Your task to perform on an android device: Search for "beats solo 3" on costco.com, select the first entry, and add it to the cart. Image 0: 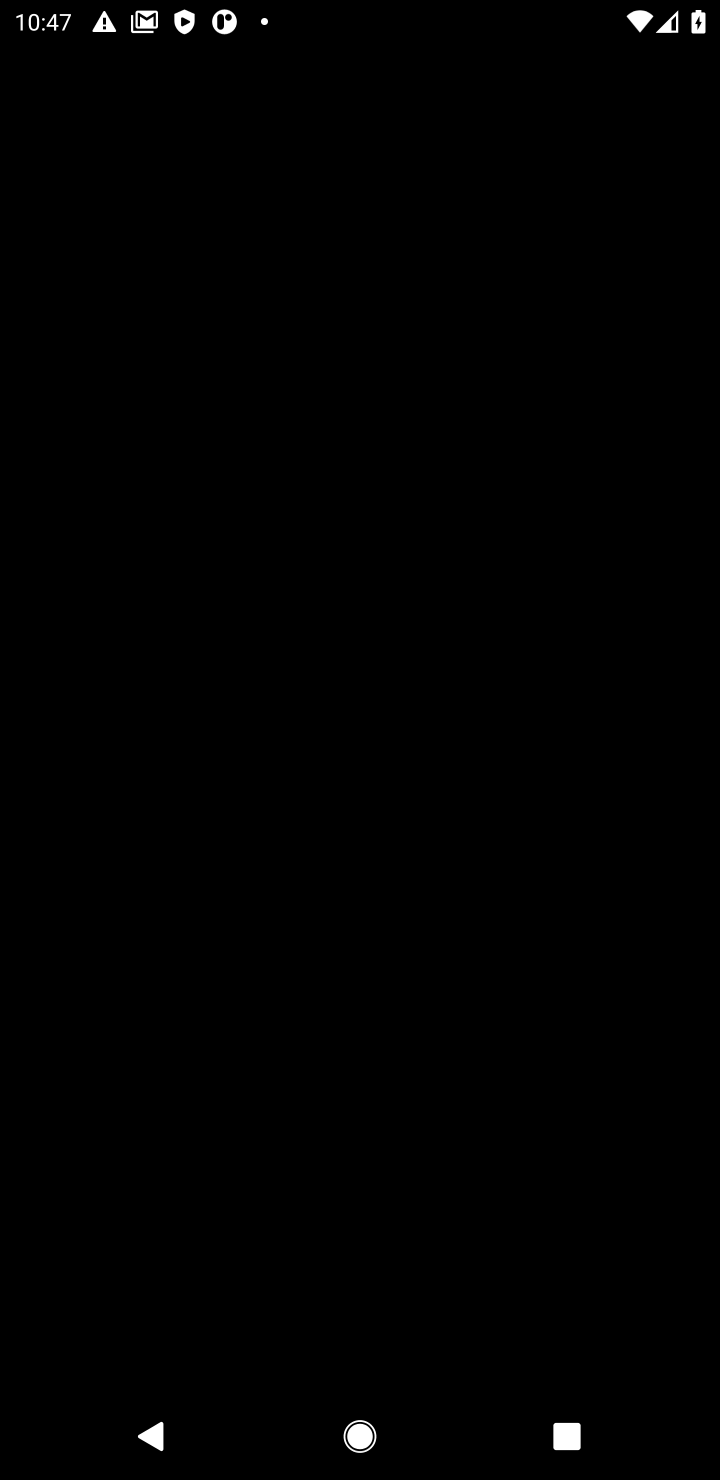
Step 0: press home button
Your task to perform on an android device: Search for "beats solo 3" on costco.com, select the first entry, and add it to the cart. Image 1: 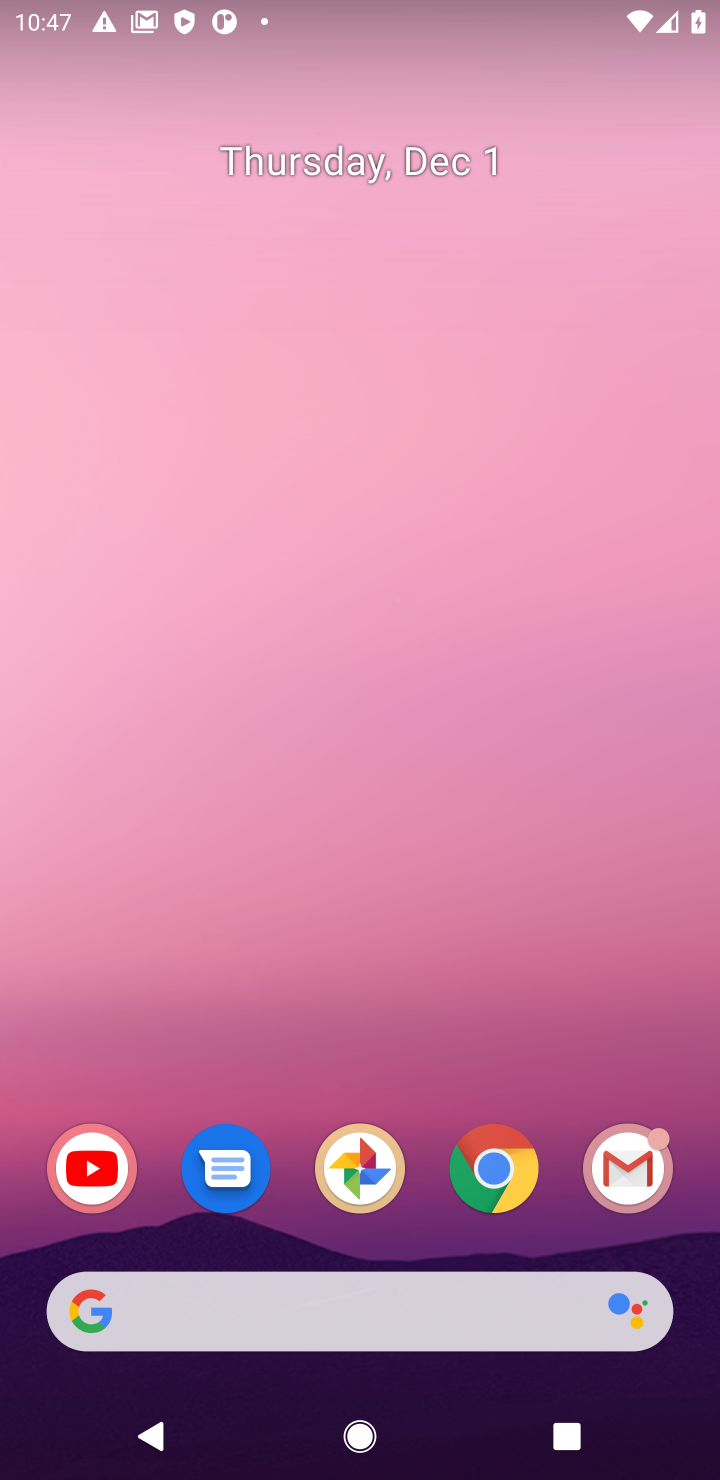
Step 1: click (492, 1173)
Your task to perform on an android device: Search for "beats solo 3" on costco.com, select the first entry, and add it to the cart. Image 2: 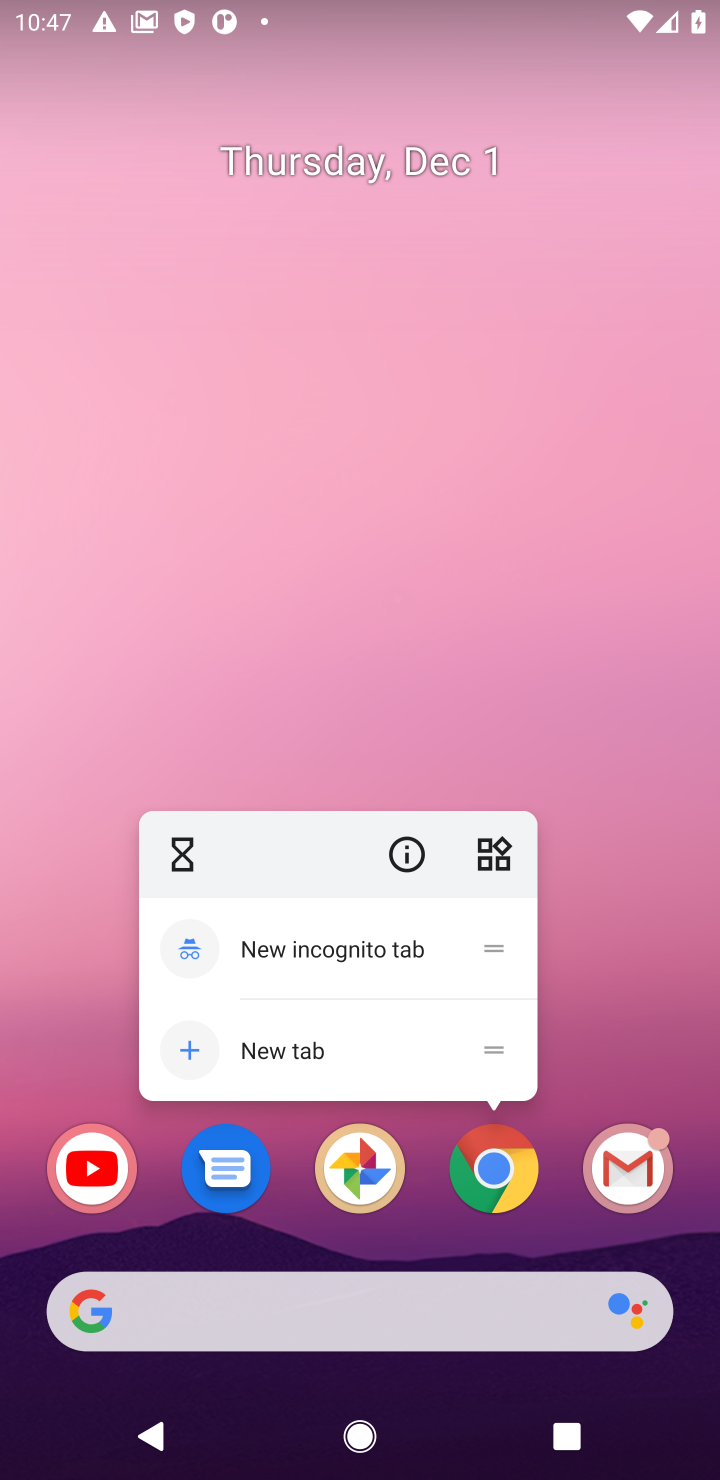
Step 2: click (492, 1173)
Your task to perform on an android device: Search for "beats solo 3" on costco.com, select the first entry, and add it to the cart. Image 3: 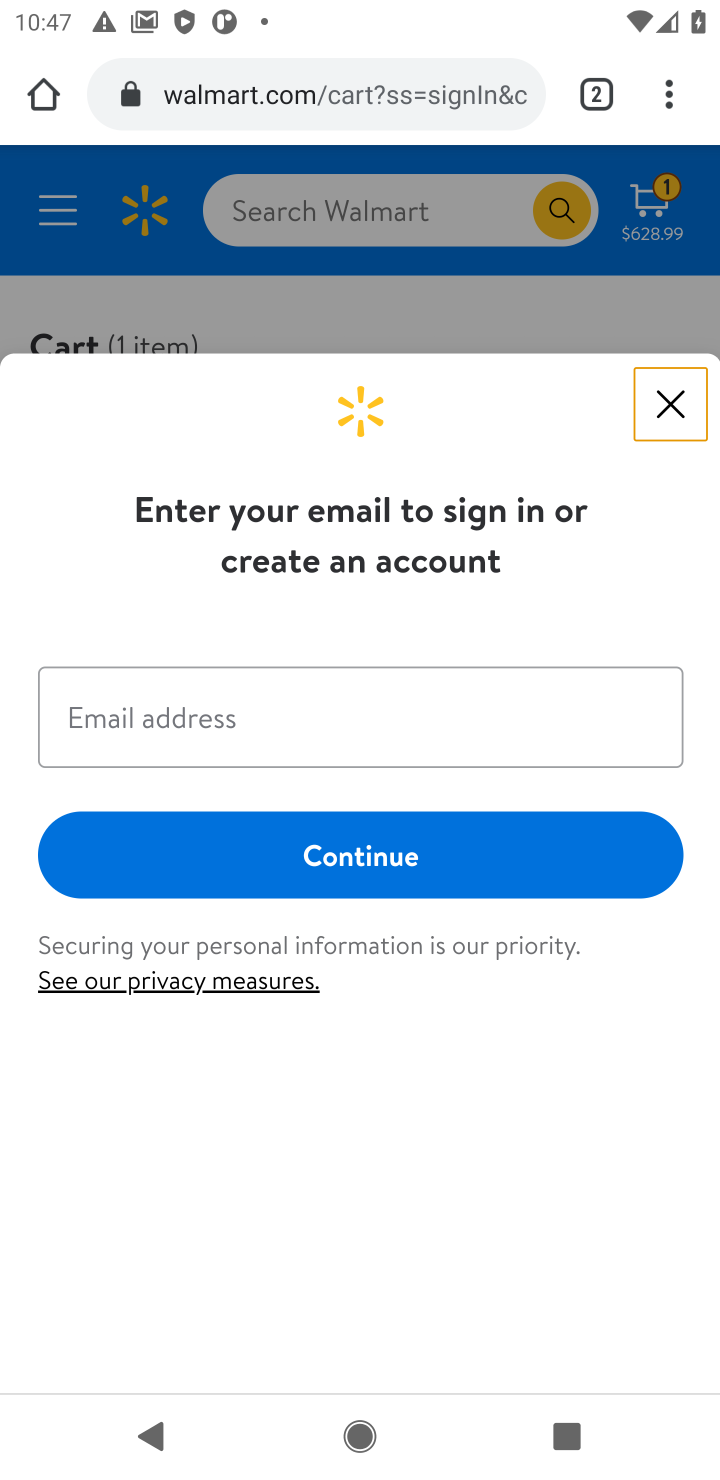
Step 3: click (246, 100)
Your task to perform on an android device: Search for "beats solo 3" on costco.com, select the first entry, and add it to the cart. Image 4: 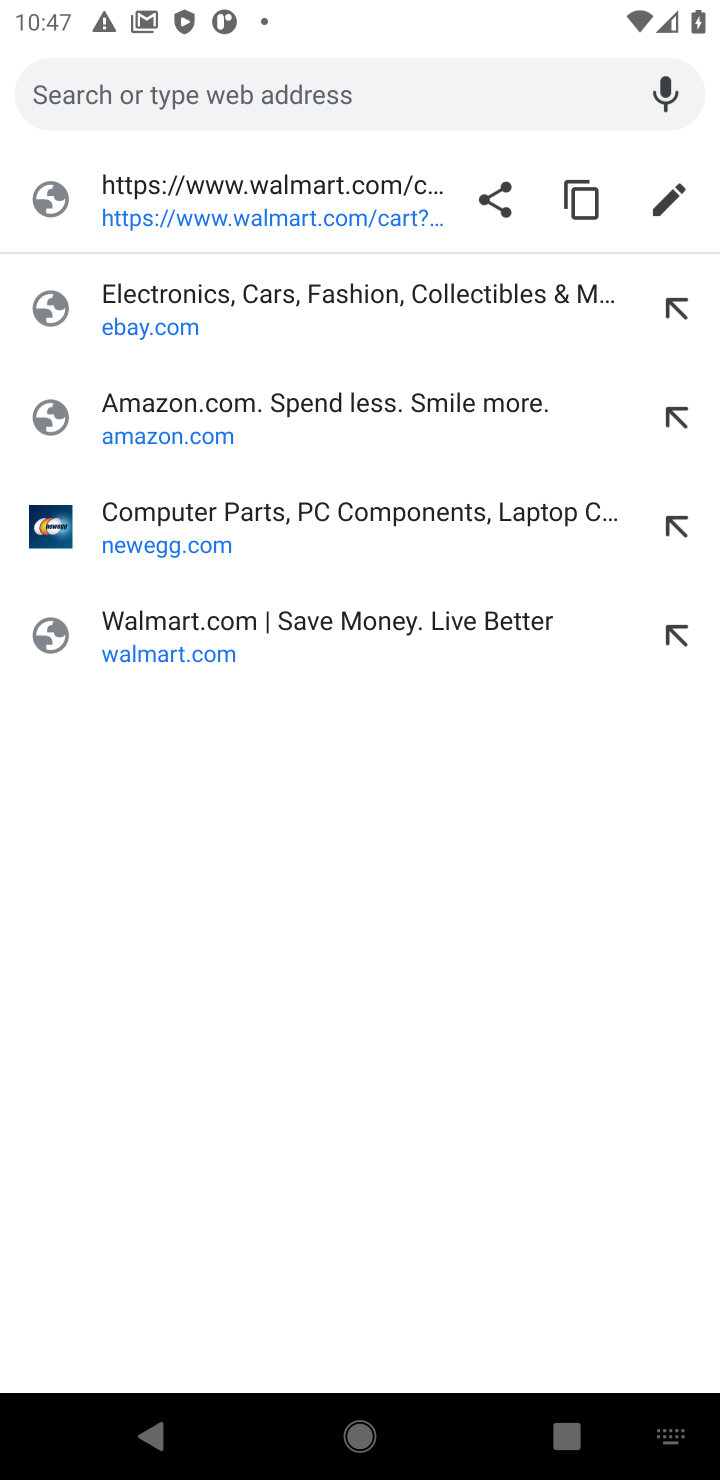
Step 4: type "costco.com"
Your task to perform on an android device: Search for "beats solo 3" on costco.com, select the first entry, and add it to the cart. Image 5: 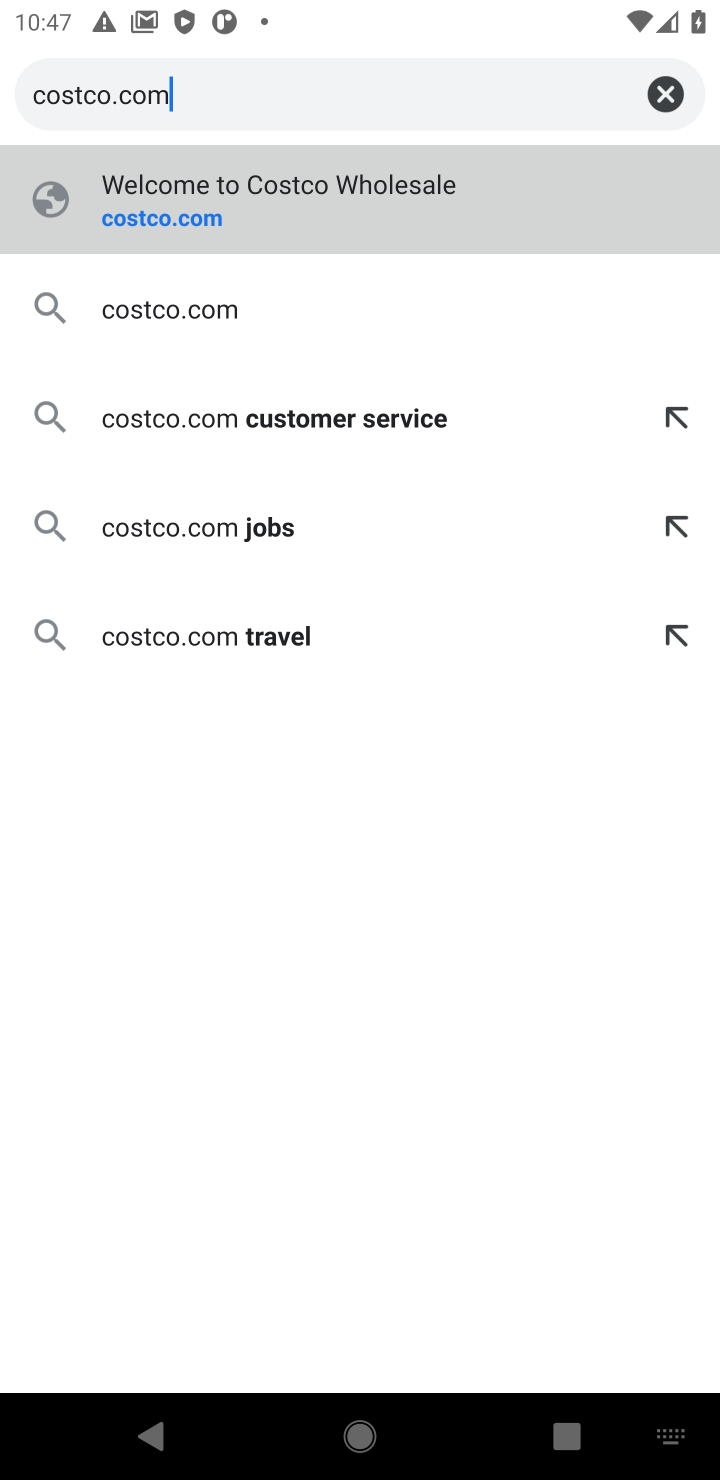
Step 5: click (123, 218)
Your task to perform on an android device: Search for "beats solo 3" on costco.com, select the first entry, and add it to the cart. Image 6: 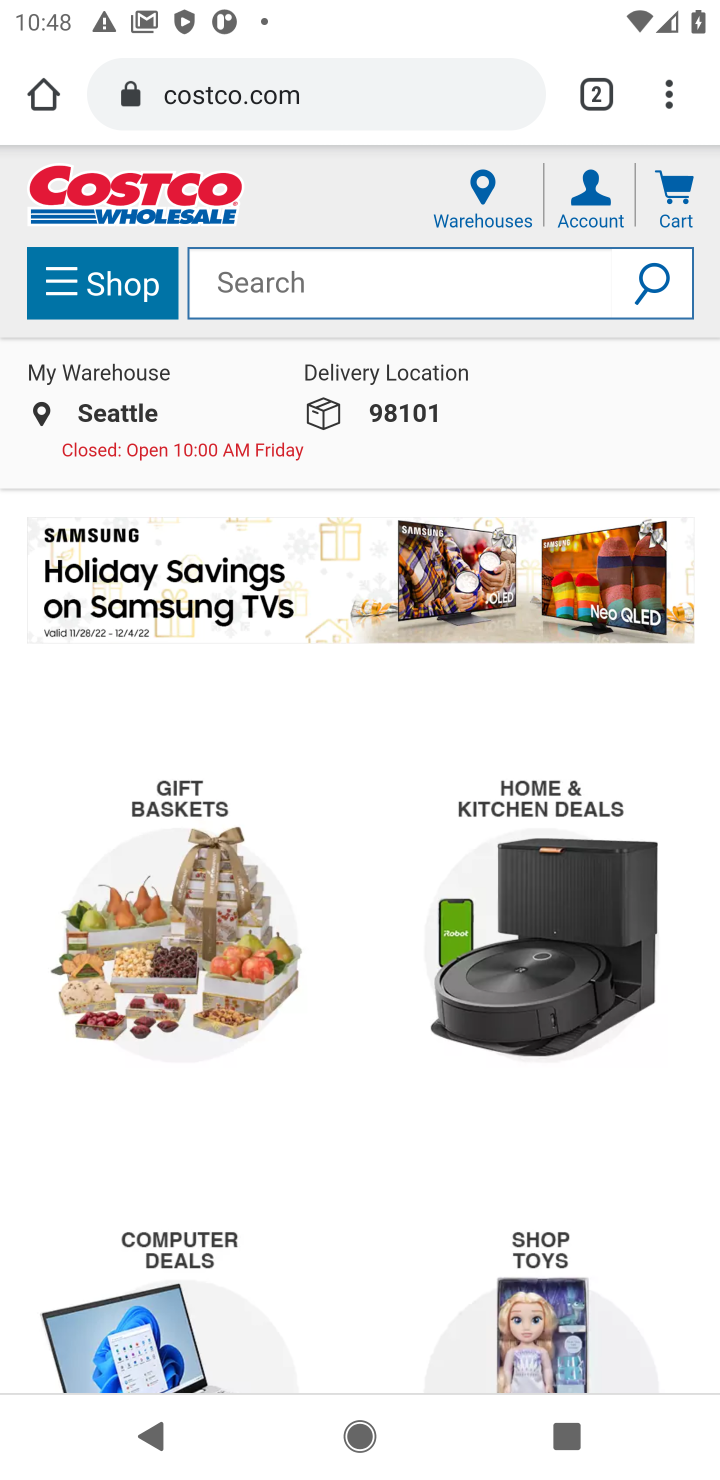
Step 6: click (286, 294)
Your task to perform on an android device: Search for "beats solo 3" on costco.com, select the first entry, and add it to the cart. Image 7: 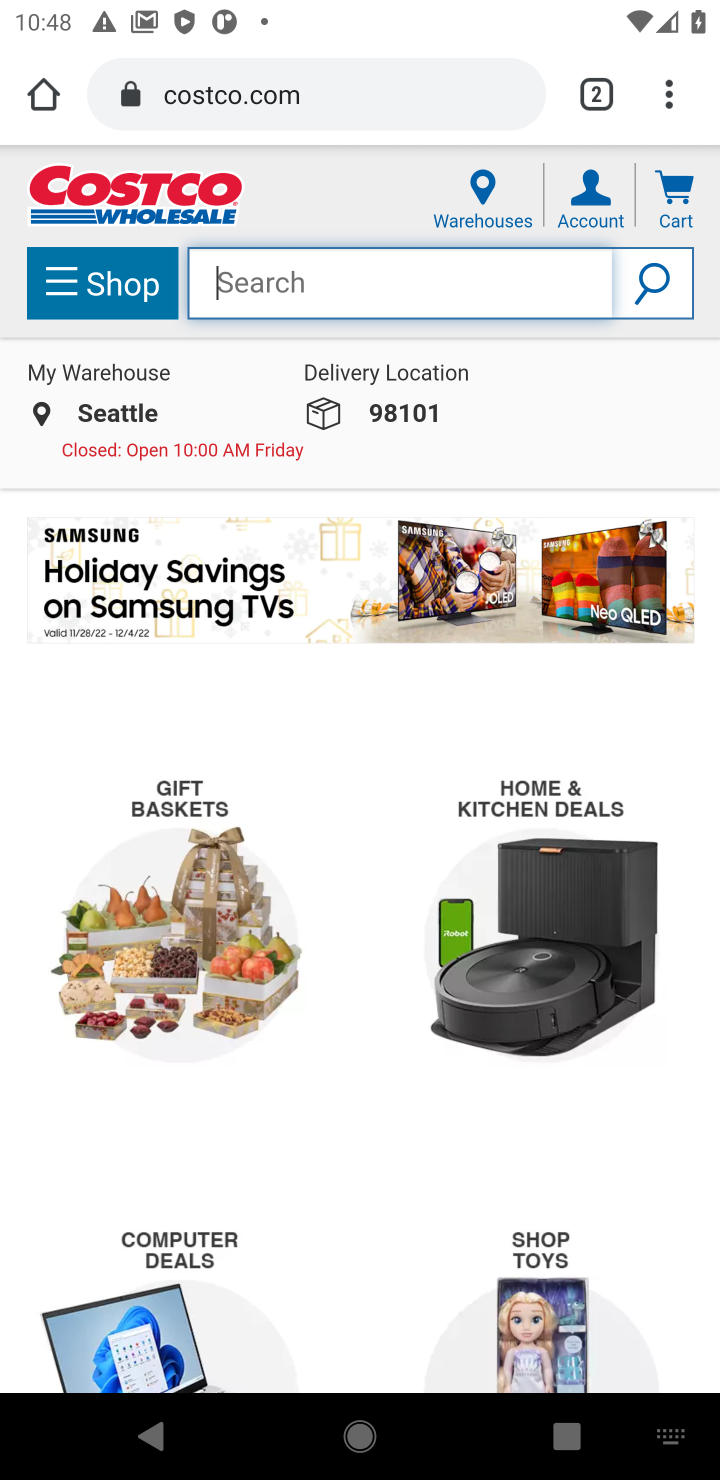
Step 7: type "beats solo 3"
Your task to perform on an android device: Search for "beats solo 3" on costco.com, select the first entry, and add it to the cart. Image 8: 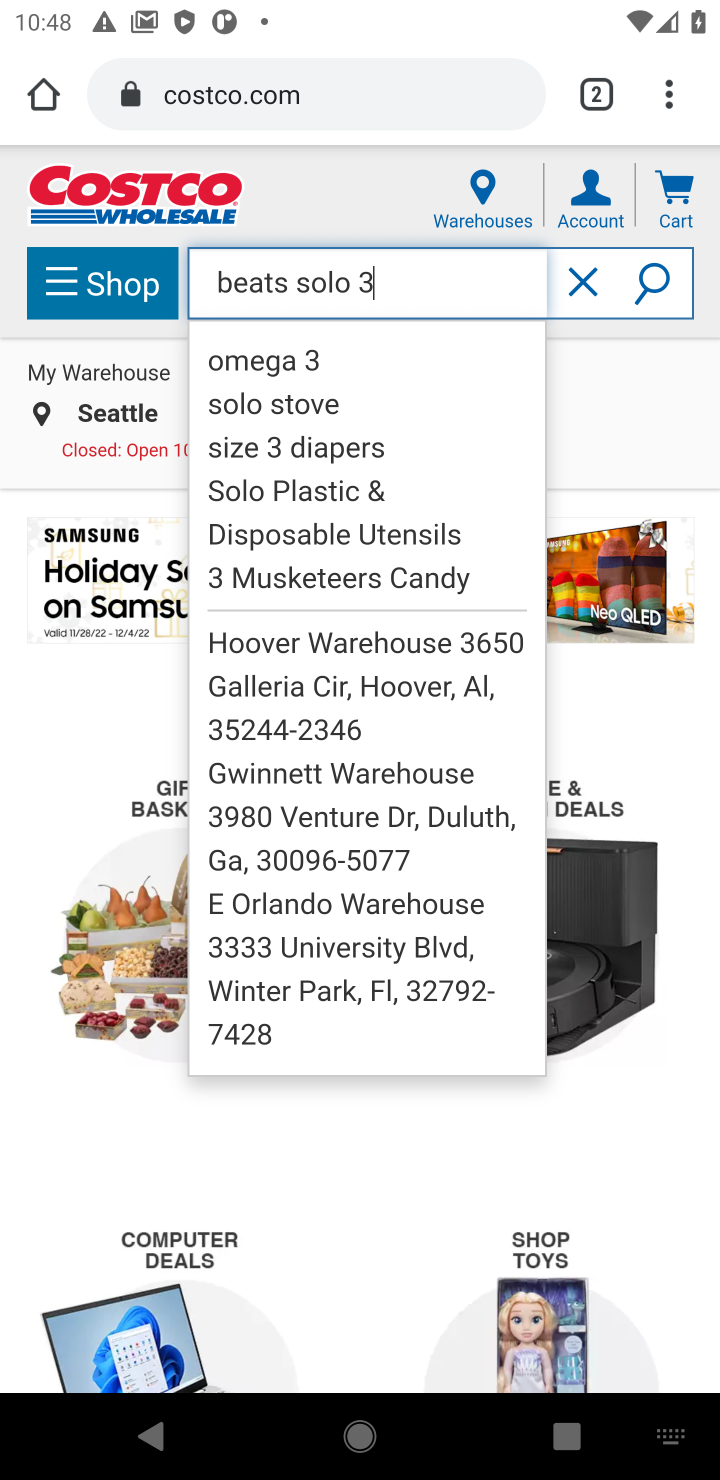
Step 8: click (647, 282)
Your task to perform on an android device: Search for "beats solo 3" on costco.com, select the first entry, and add it to the cart. Image 9: 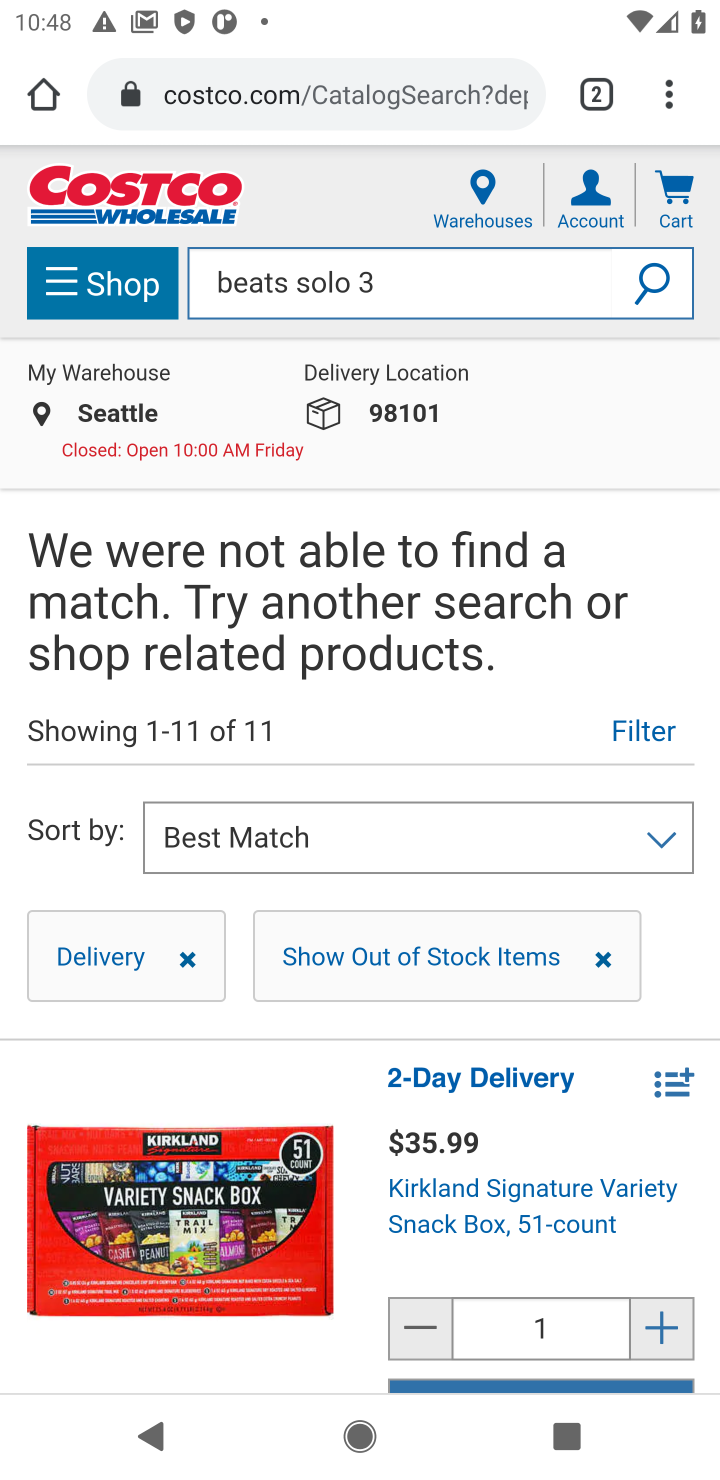
Step 9: task complete